Your task to perform on an android device: check out phone information Image 0: 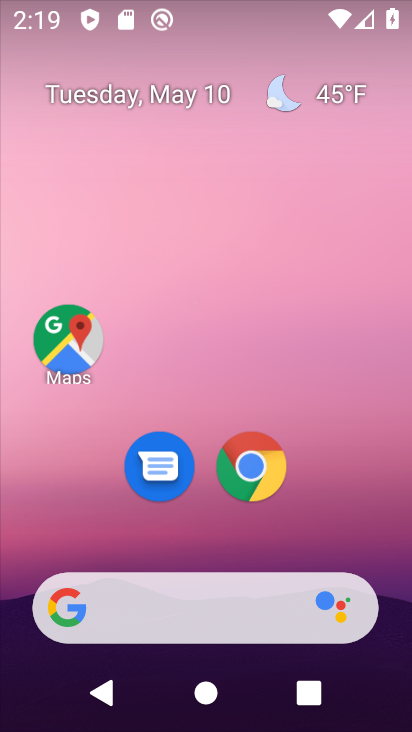
Step 0: drag from (384, 560) to (362, 314)
Your task to perform on an android device: check out phone information Image 1: 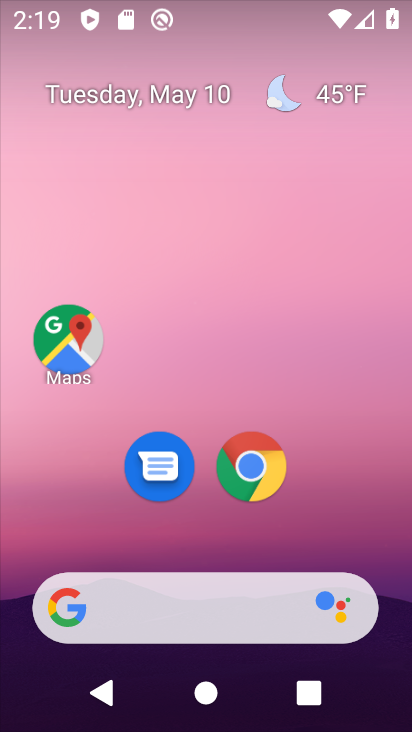
Step 1: click (339, 272)
Your task to perform on an android device: check out phone information Image 2: 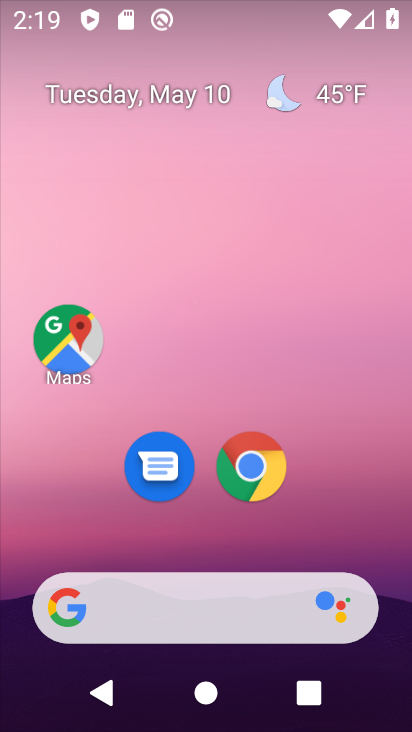
Step 2: drag from (396, 637) to (358, 263)
Your task to perform on an android device: check out phone information Image 3: 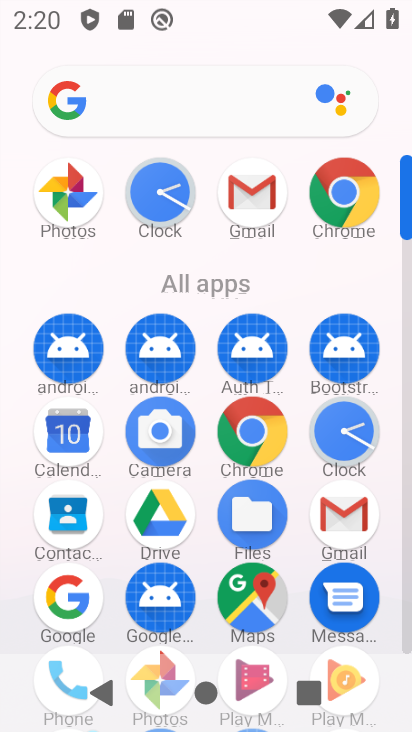
Step 3: drag from (407, 170) to (402, 108)
Your task to perform on an android device: check out phone information Image 4: 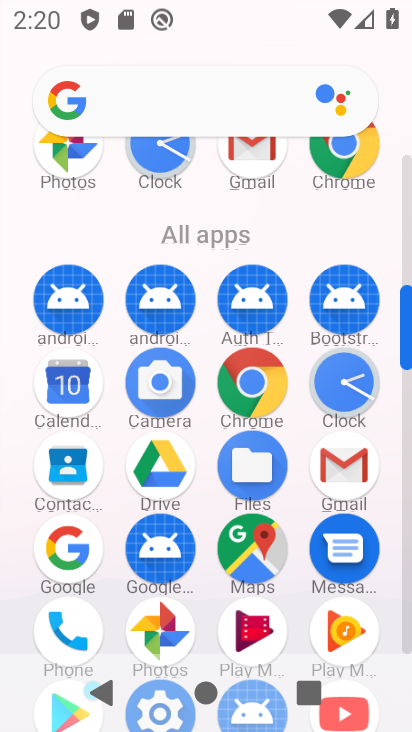
Step 4: drag from (403, 293) to (397, 178)
Your task to perform on an android device: check out phone information Image 5: 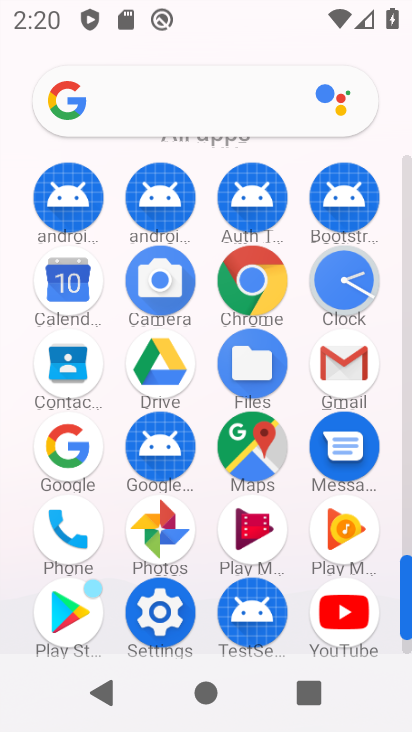
Step 5: click (159, 625)
Your task to perform on an android device: check out phone information Image 6: 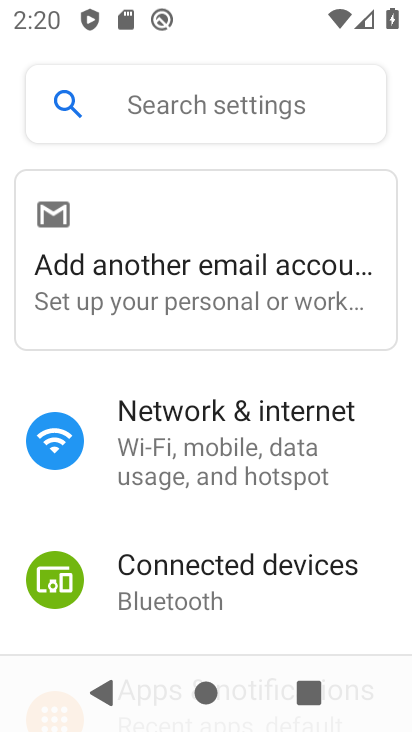
Step 6: drag from (334, 611) to (312, 342)
Your task to perform on an android device: check out phone information Image 7: 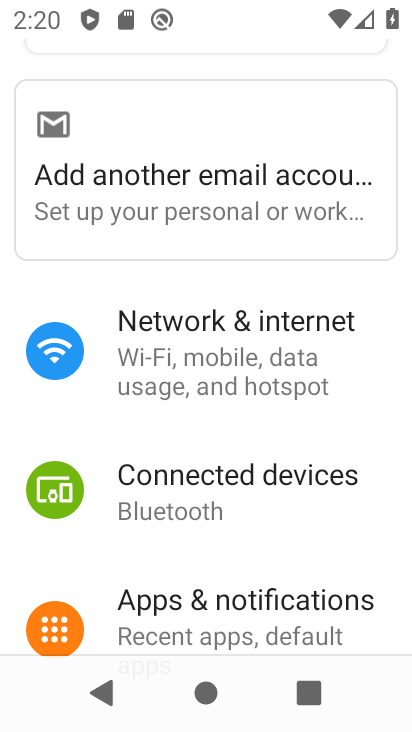
Step 7: drag from (335, 574) to (345, 367)
Your task to perform on an android device: check out phone information Image 8: 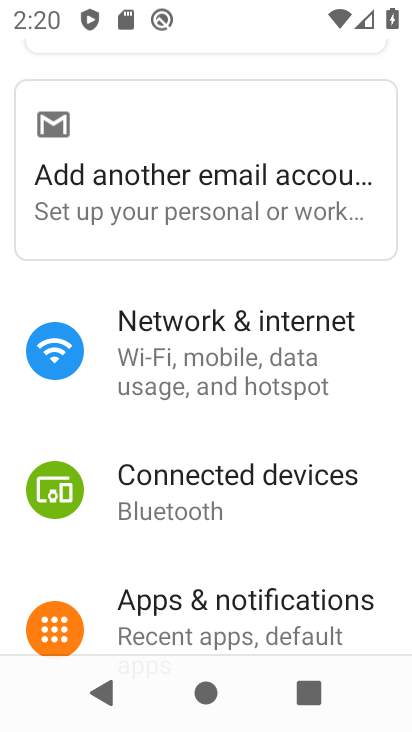
Step 8: drag from (385, 448) to (380, 302)
Your task to perform on an android device: check out phone information Image 9: 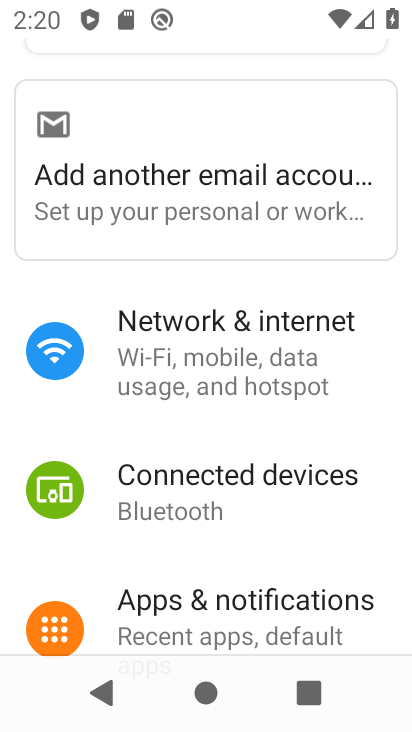
Step 9: drag from (347, 456) to (352, 197)
Your task to perform on an android device: check out phone information Image 10: 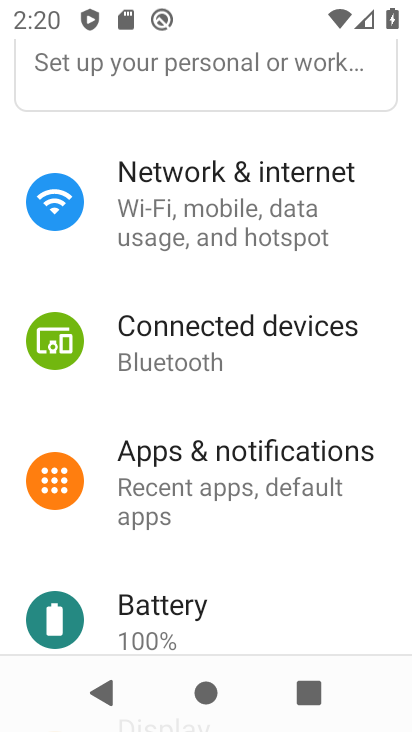
Step 10: drag from (317, 604) to (312, 160)
Your task to perform on an android device: check out phone information Image 11: 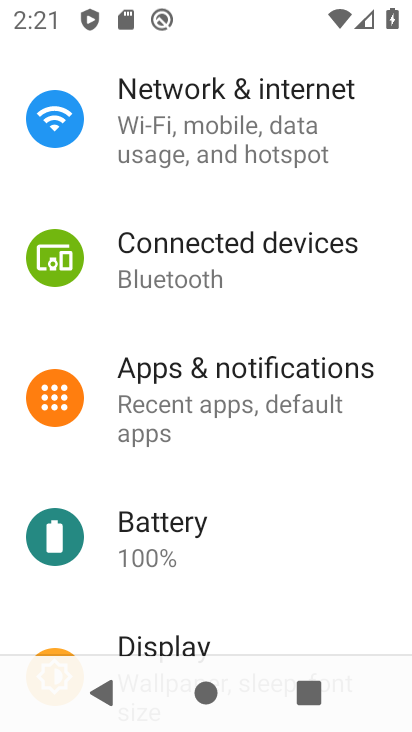
Step 11: drag from (343, 607) to (325, 228)
Your task to perform on an android device: check out phone information Image 12: 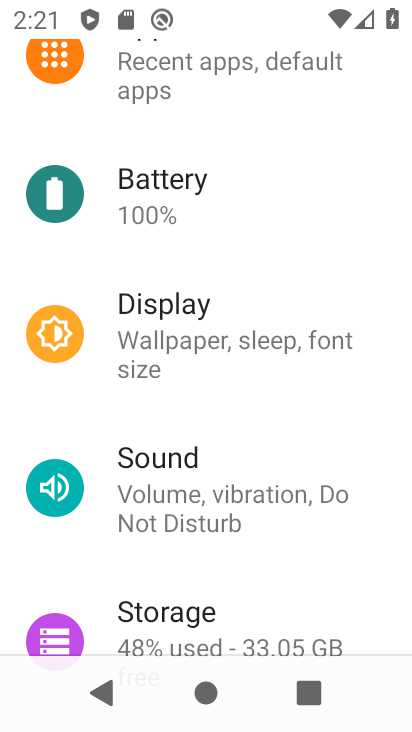
Step 12: drag from (302, 634) to (293, 270)
Your task to perform on an android device: check out phone information Image 13: 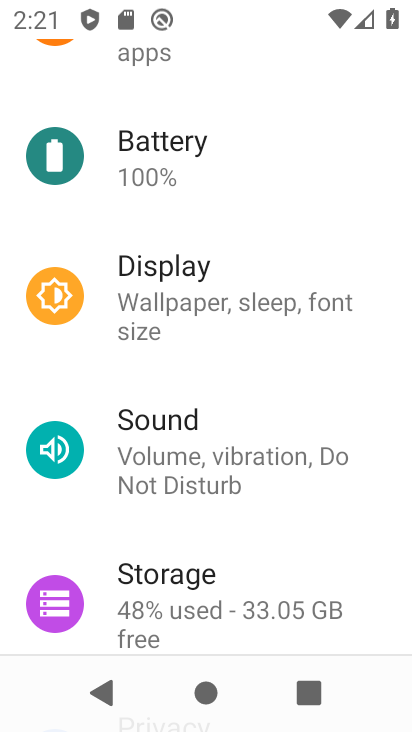
Step 13: drag from (380, 619) to (379, 118)
Your task to perform on an android device: check out phone information Image 14: 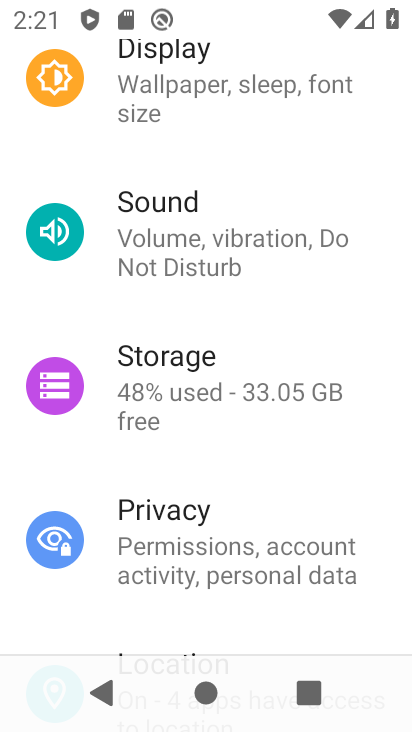
Step 14: drag from (383, 618) to (383, 172)
Your task to perform on an android device: check out phone information Image 15: 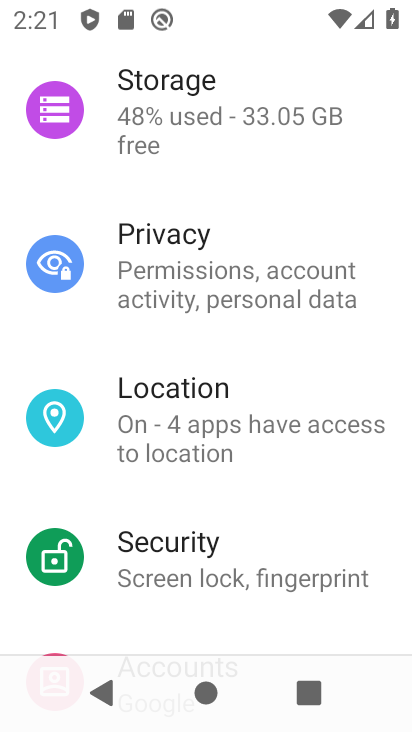
Step 15: drag from (389, 635) to (385, 130)
Your task to perform on an android device: check out phone information Image 16: 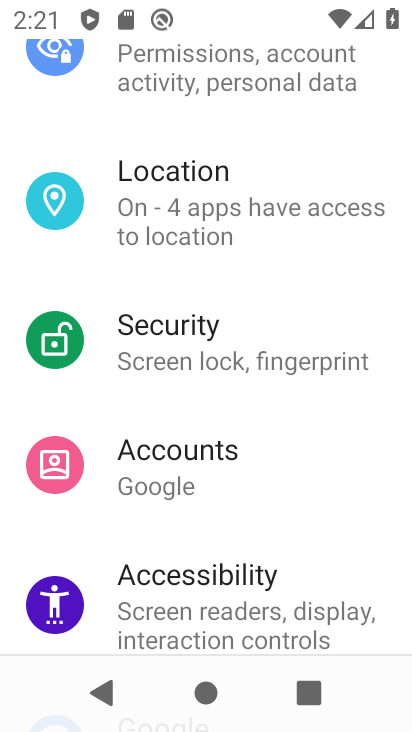
Step 16: drag from (391, 639) to (382, 259)
Your task to perform on an android device: check out phone information Image 17: 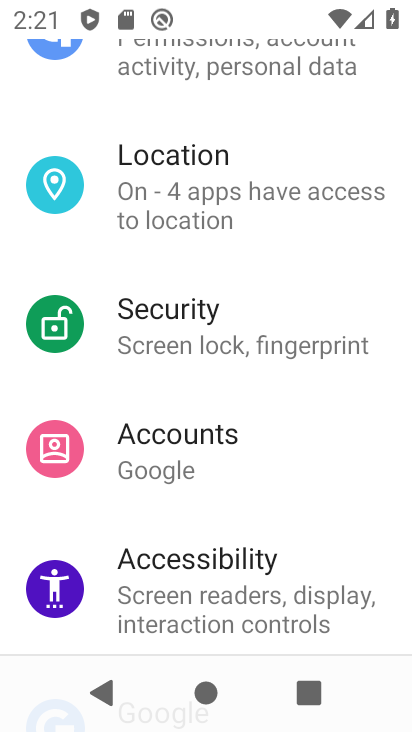
Step 17: drag from (384, 621) to (365, 124)
Your task to perform on an android device: check out phone information Image 18: 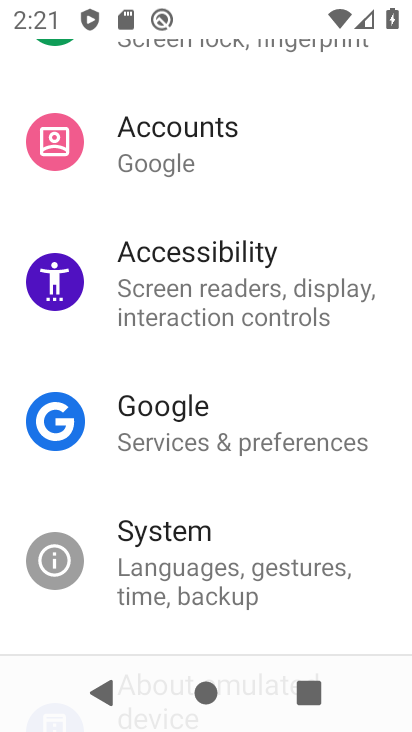
Step 18: drag from (363, 631) to (364, 357)
Your task to perform on an android device: check out phone information Image 19: 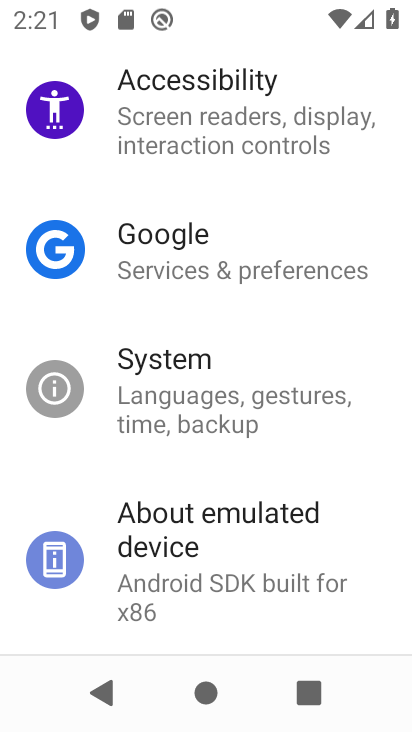
Step 19: click (142, 557)
Your task to perform on an android device: check out phone information Image 20: 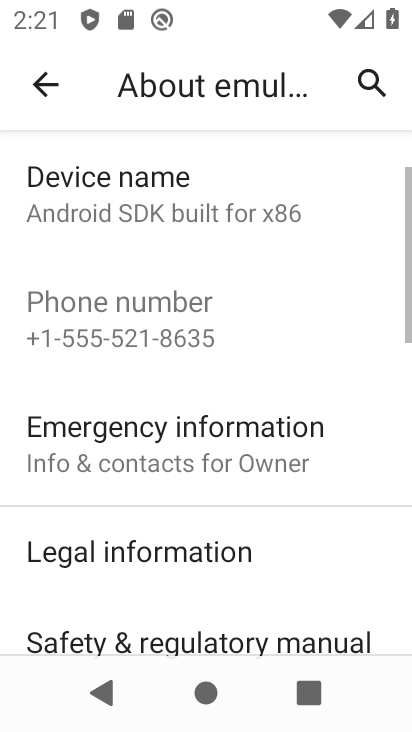
Step 20: task complete